Your task to perform on an android device: Go to battery settings Image 0: 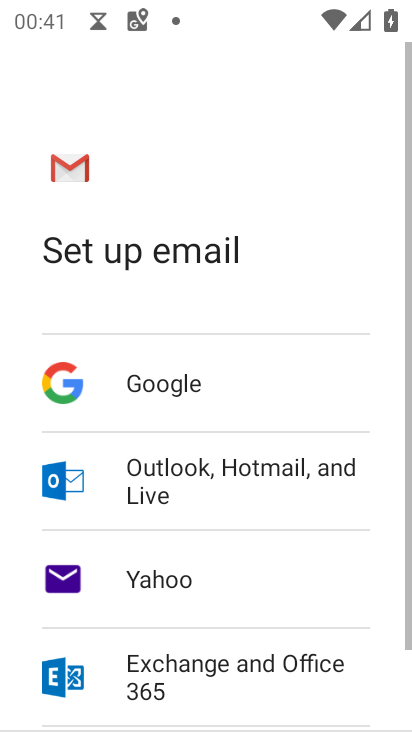
Step 0: press home button
Your task to perform on an android device: Go to battery settings Image 1: 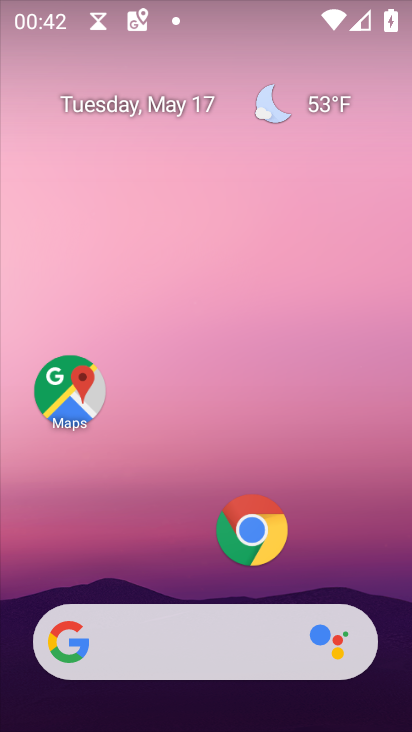
Step 1: drag from (237, 398) to (234, 228)
Your task to perform on an android device: Go to battery settings Image 2: 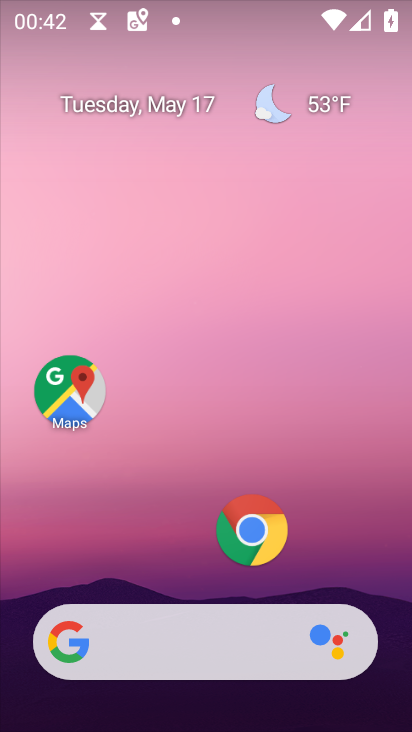
Step 2: drag from (171, 562) to (178, 24)
Your task to perform on an android device: Go to battery settings Image 3: 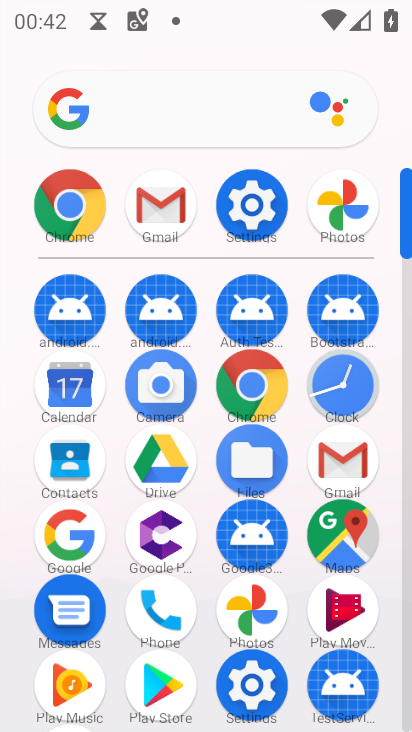
Step 3: click (250, 198)
Your task to perform on an android device: Go to battery settings Image 4: 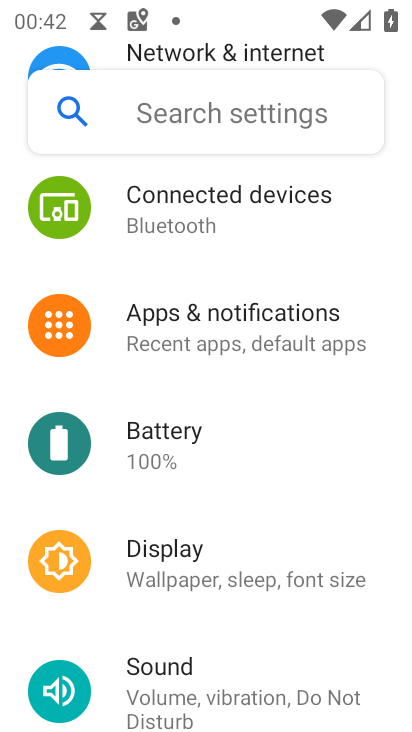
Step 4: drag from (303, 670) to (304, 551)
Your task to perform on an android device: Go to battery settings Image 5: 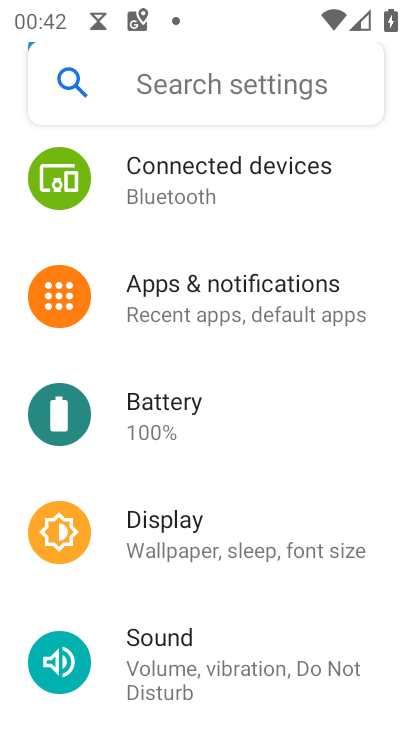
Step 5: click (304, 551)
Your task to perform on an android device: Go to battery settings Image 6: 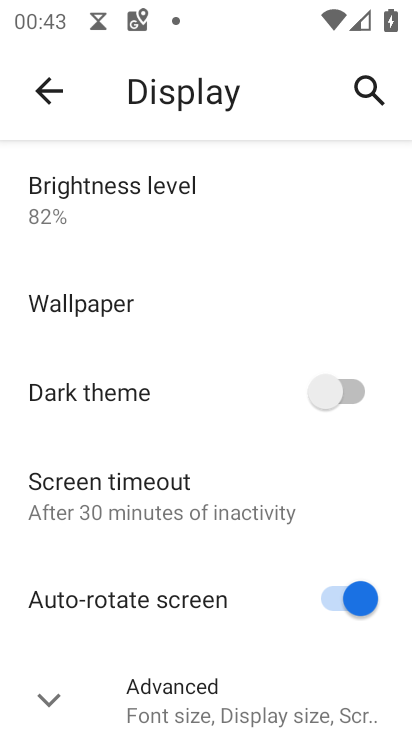
Step 6: click (47, 81)
Your task to perform on an android device: Go to battery settings Image 7: 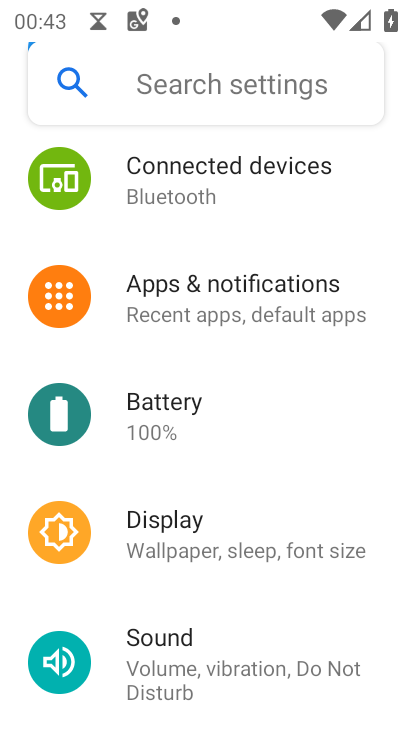
Step 7: click (207, 432)
Your task to perform on an android device: Go to battery settings Image 8: 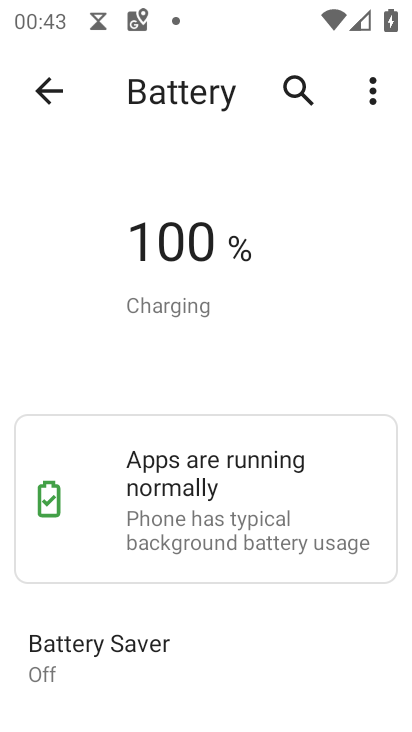
Step 8: task complete